Your task to perform on an android device: Go to location settings Image 0: 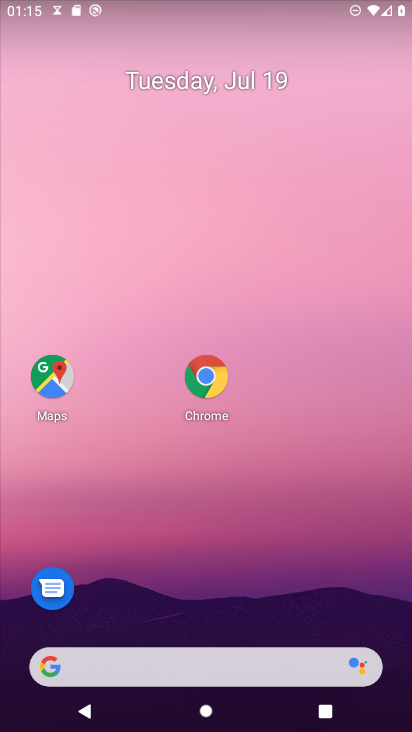
Step 0: press home button
Your task to perform on an android device: Go to location settings Image 1: 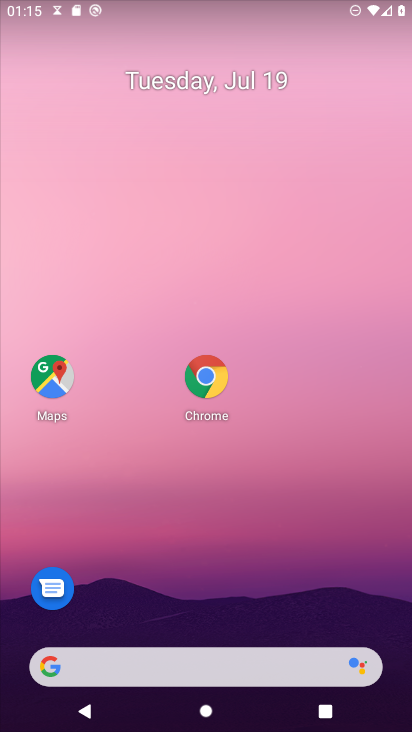
Step 1: drag from (310, 499) to (298, 2)
Your task to perform on an android device: Go to location settings Image 2: 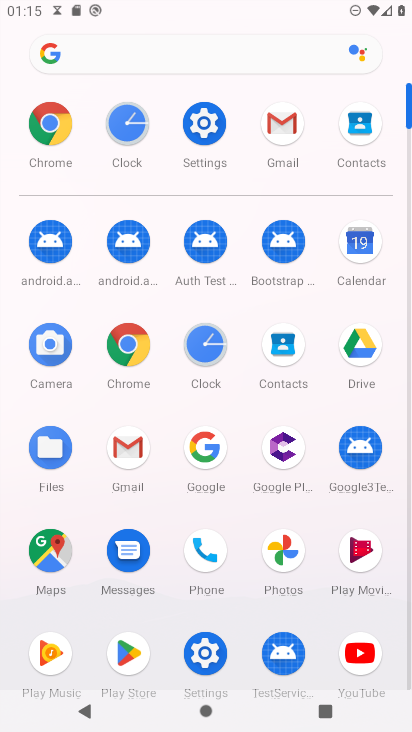
Step 2: click (207, 114)
Your task to perform on an android device: Go to location settings Image 3: 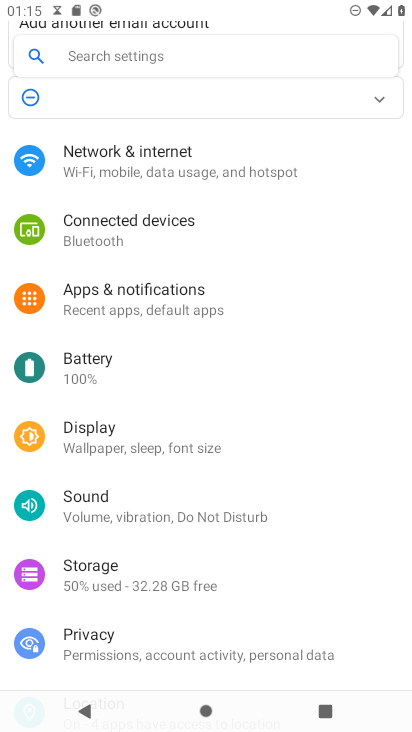
Step 3: drag from (143, 483) to (198, 177)
Your task to perform on an android device: Go to location settings Image 4: 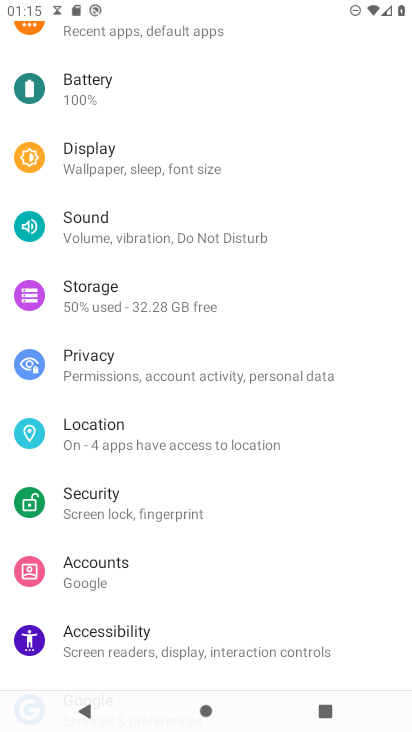
Step 4: click (135, 435)
Your task to perform on an android device: Go to location settings Image 5: 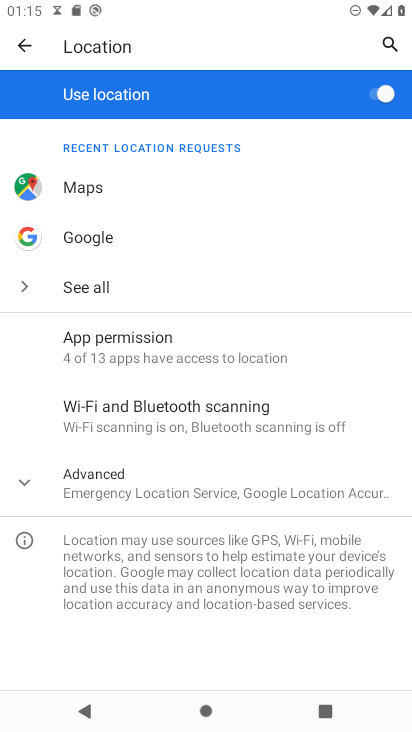
Step 5: task complete